Your task to perform on an android device: change the upload size in google photos Image 0: 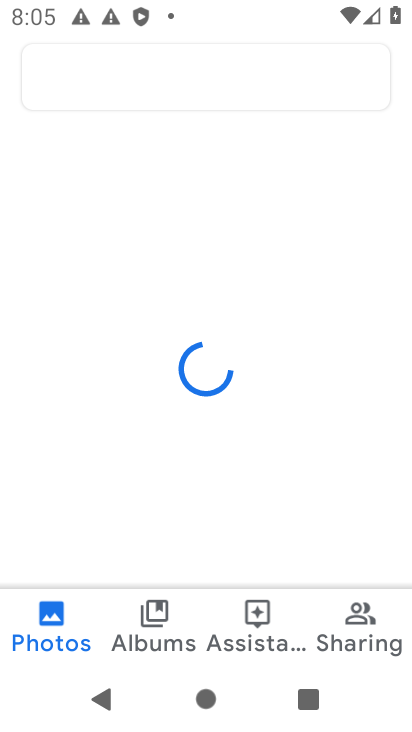
Step 0: press home button
Your task to perform on an android device: change the upload size in google photos Image 1: 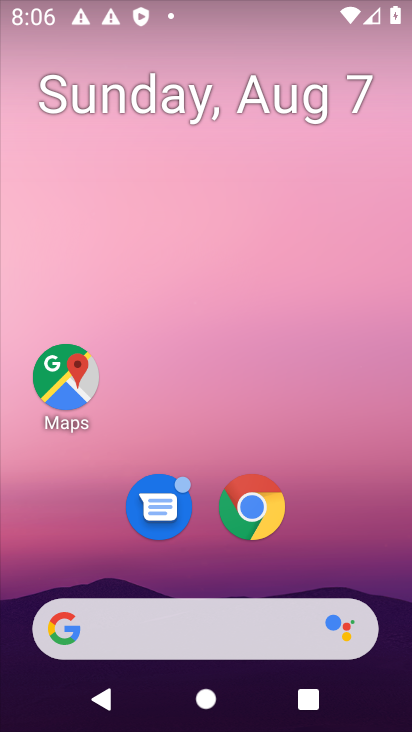
Step 1: drag from (149, 603) to (304, 134)
Your task to perform on an android device: change the upload size in google photos Image 2: 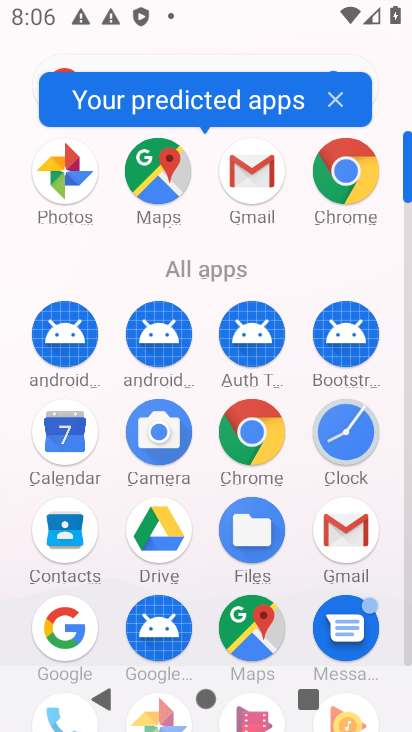
Step 2: click (69, 175)
Your task to perform on an android device: change the upload size in google photos Image 3: 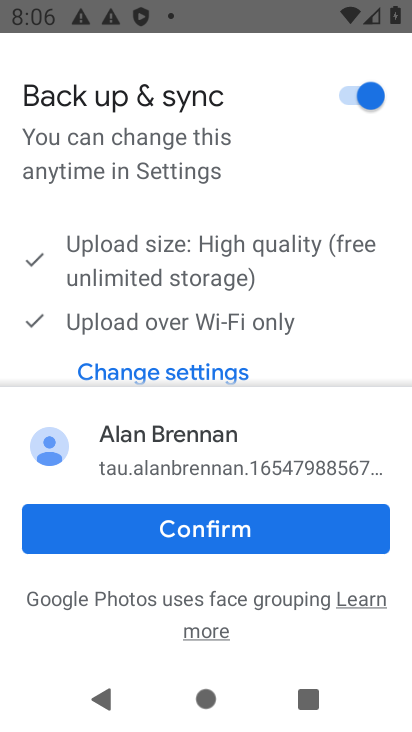
Step 3: click (233, 529)
Your task to perform on an android device: change the upload size in google photos Image 4: 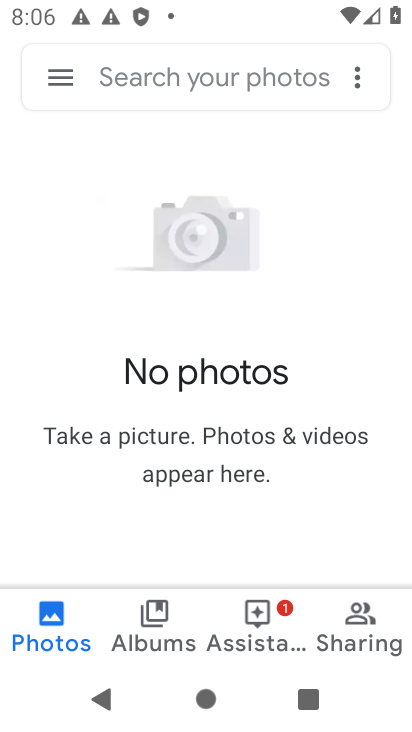
Step 4: click (53, 78)
Your task to perform on an android device: change the upload size in google photos Image 5: 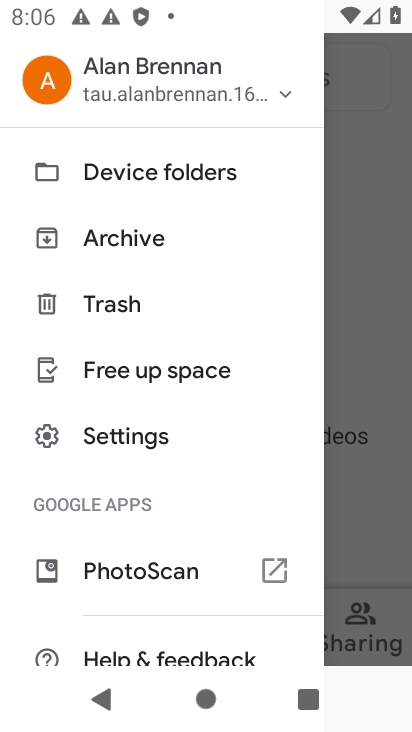
Step 5: click (137, 437)
Your task to perform on an android device: change the upload size in google photos Image 6: 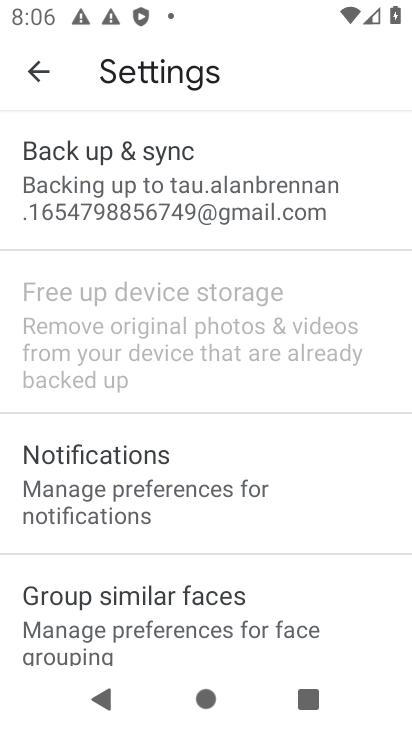
Step 6: click (212, 229)
Your task to perform on an android device: change the upload size in google photos Image 7: 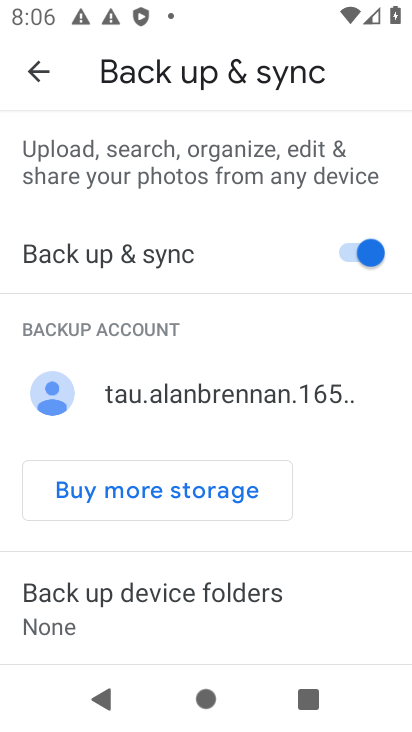
Step 7: drag from (322, 623) to (356, 119)
Your task to perform on an android device: change the upload size in google photos Image 8: 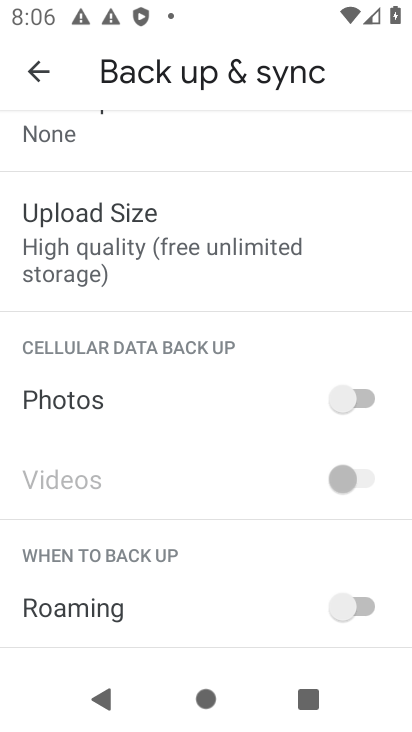
Step 8: click (179, 219)
Your task to perform on an android device: change the upload size in google photos Image 9: 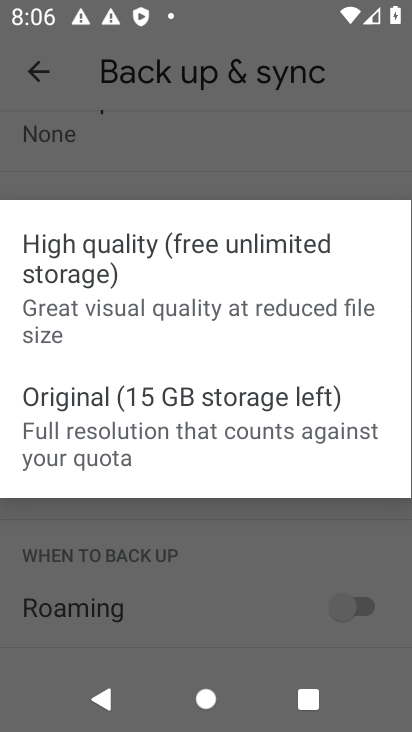
Step 9: click (84, 415)
Your task to perform on an android device: change the upload size in google photos Image 10: 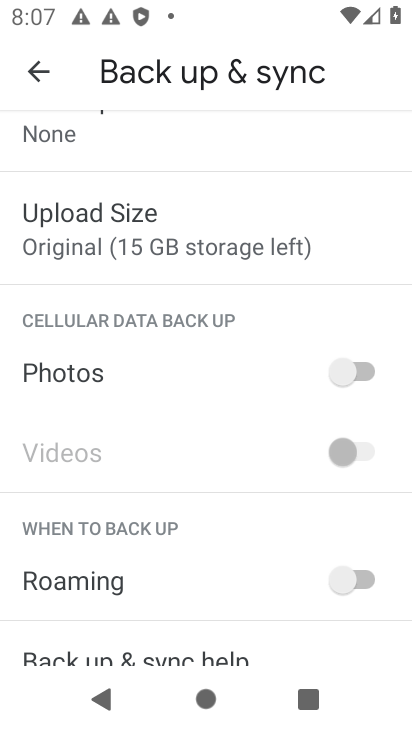
Step 10: task complete